Your task to perform on an android device: change text size in settings app Image 0: 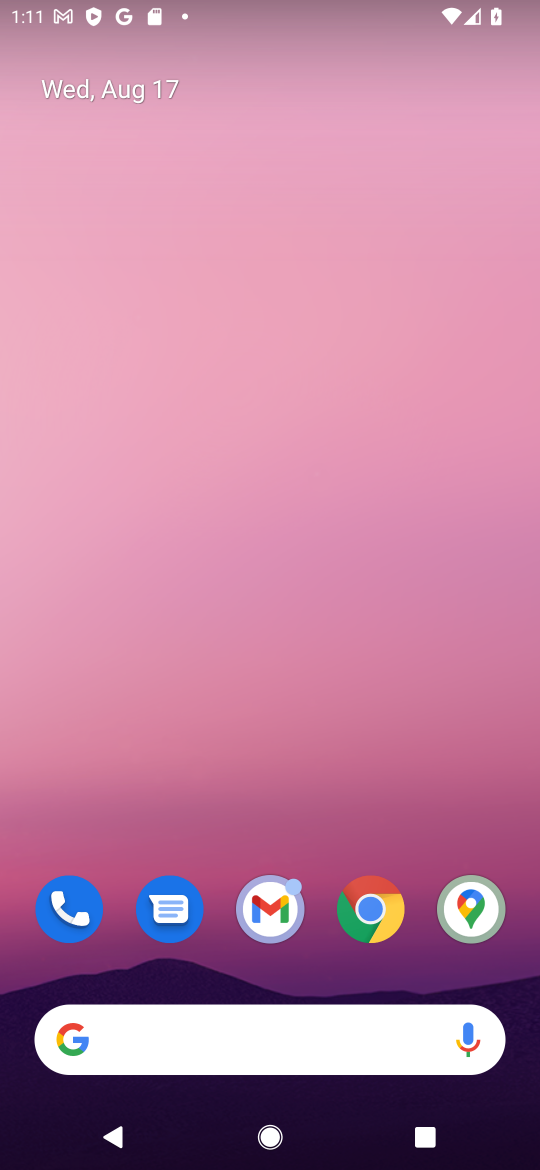
Step 0: drag from (253, 754) to (261, 101)
Your task to perform on an android device: change text size in settings app Image 1: 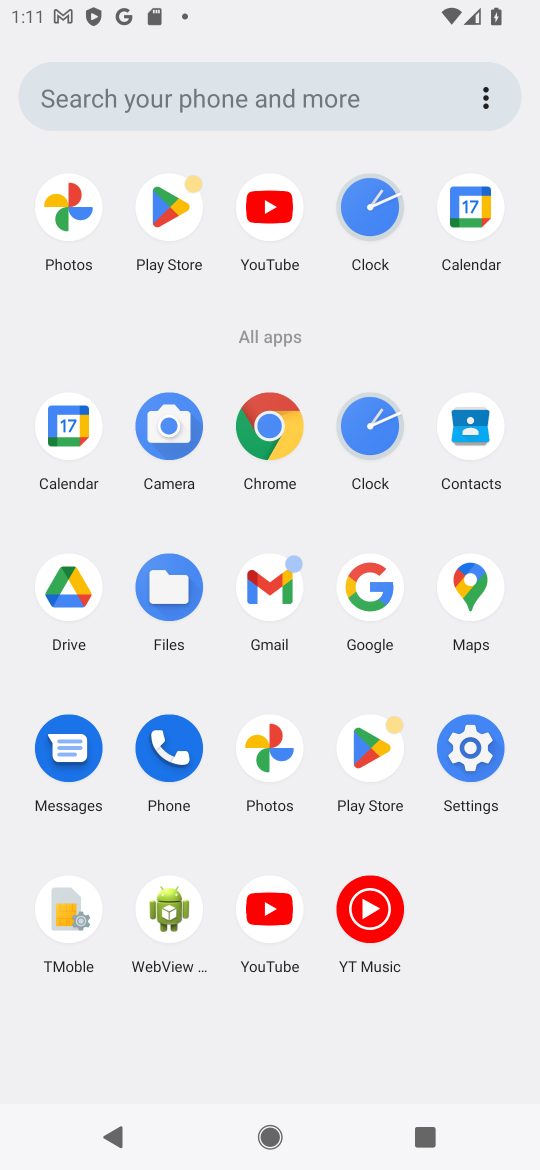
Step 1: click (472, 765)
Your task to perform on an android device: change text size in settings app Image 2: 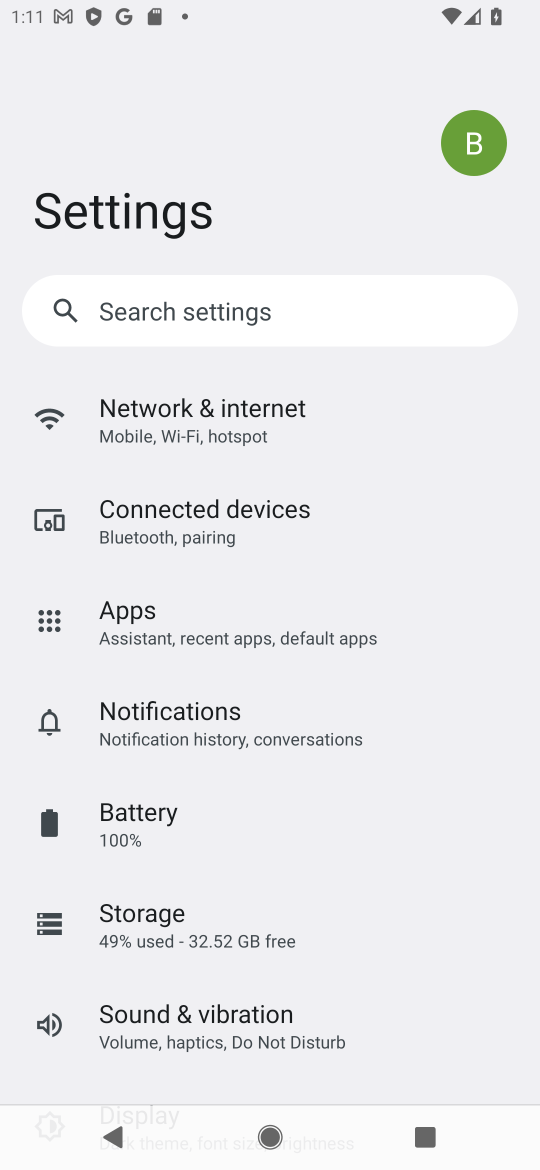
Step 2: task complete